Your task to perform on an android device: Open notification settings Image 0: 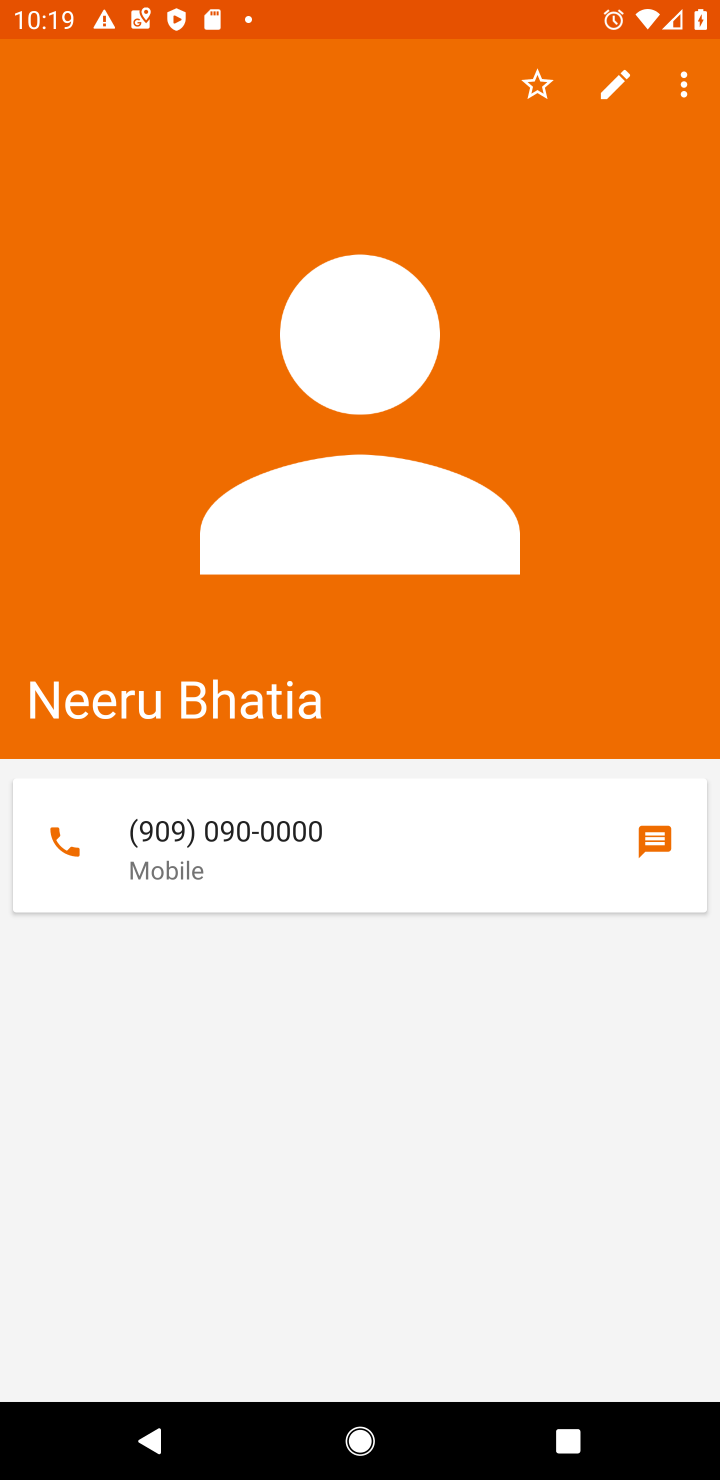
Step 0: press home button
Your task to perform on an android device: Open notification settings Image 1: 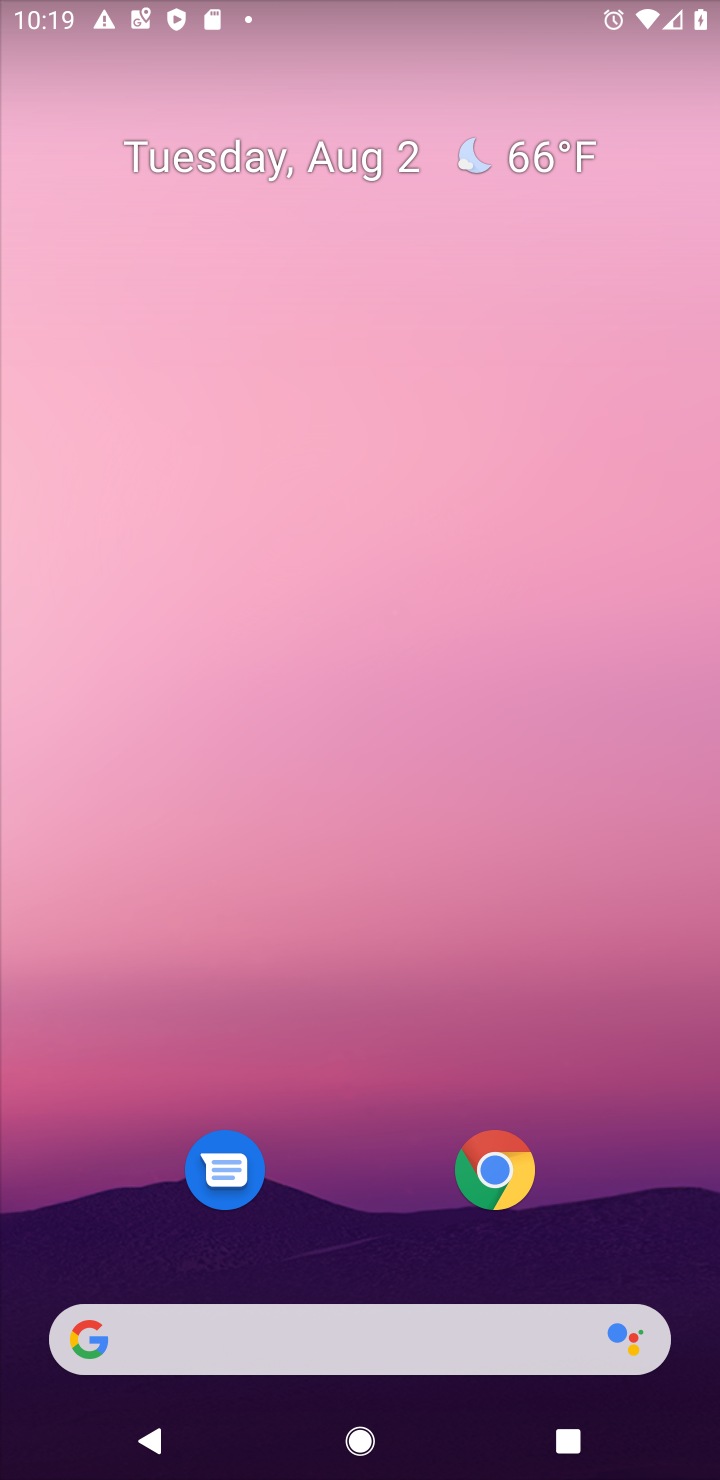
Step 1: drag from (314, 1250) to (340, 381)
Your task to perform on an android device: Open notification settings Image 2: 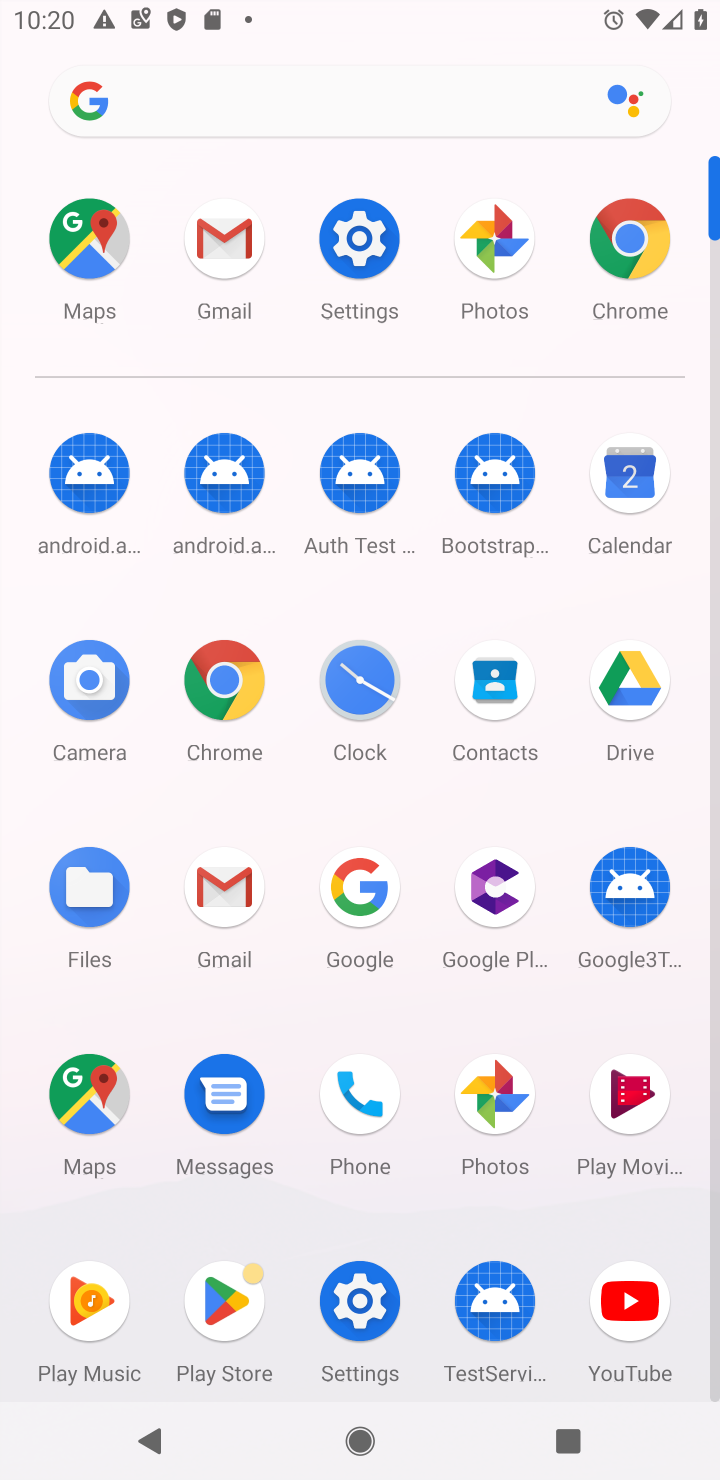
Step 2: click (353, 230)
Your task to perform on an android device: Open notification settings Image 3: 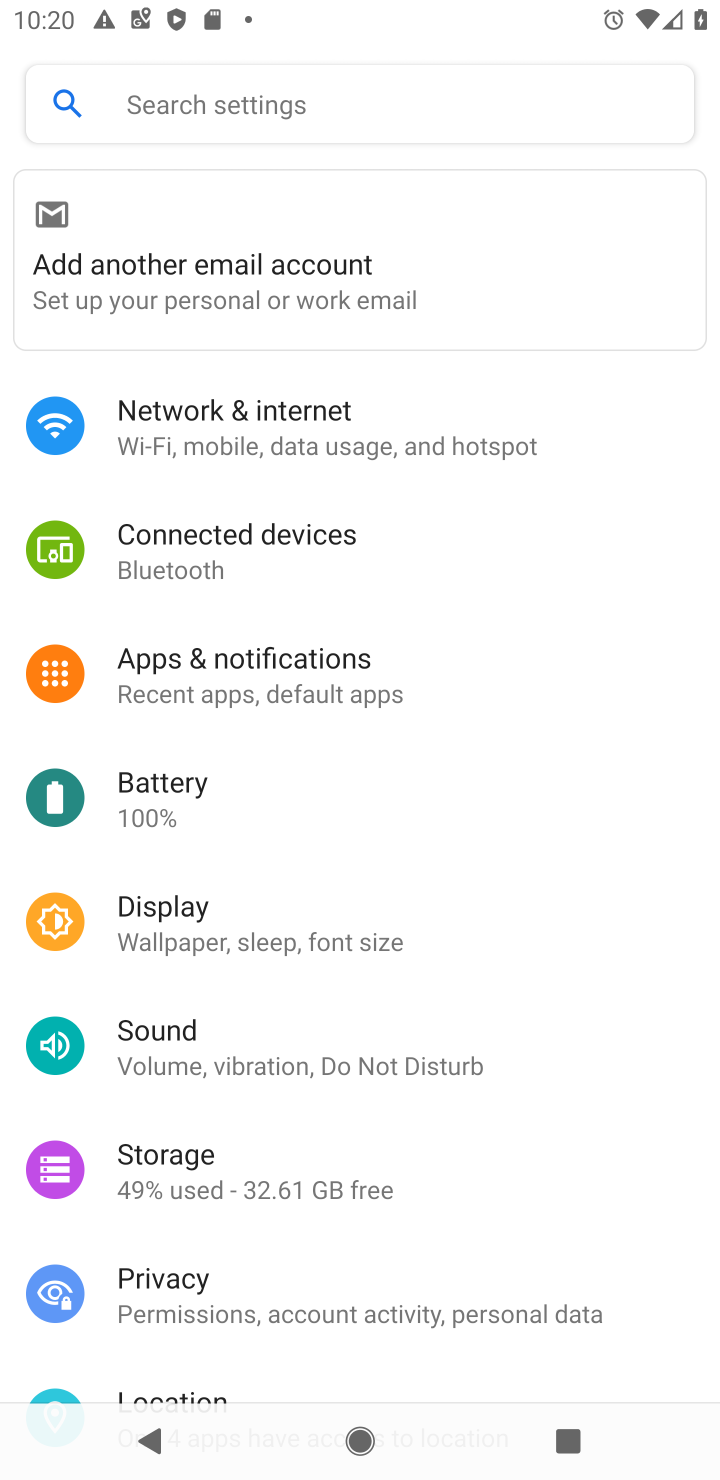
Step 3: click (202, 655)
Your task to perform on an android device: Open notification settings Image 4: 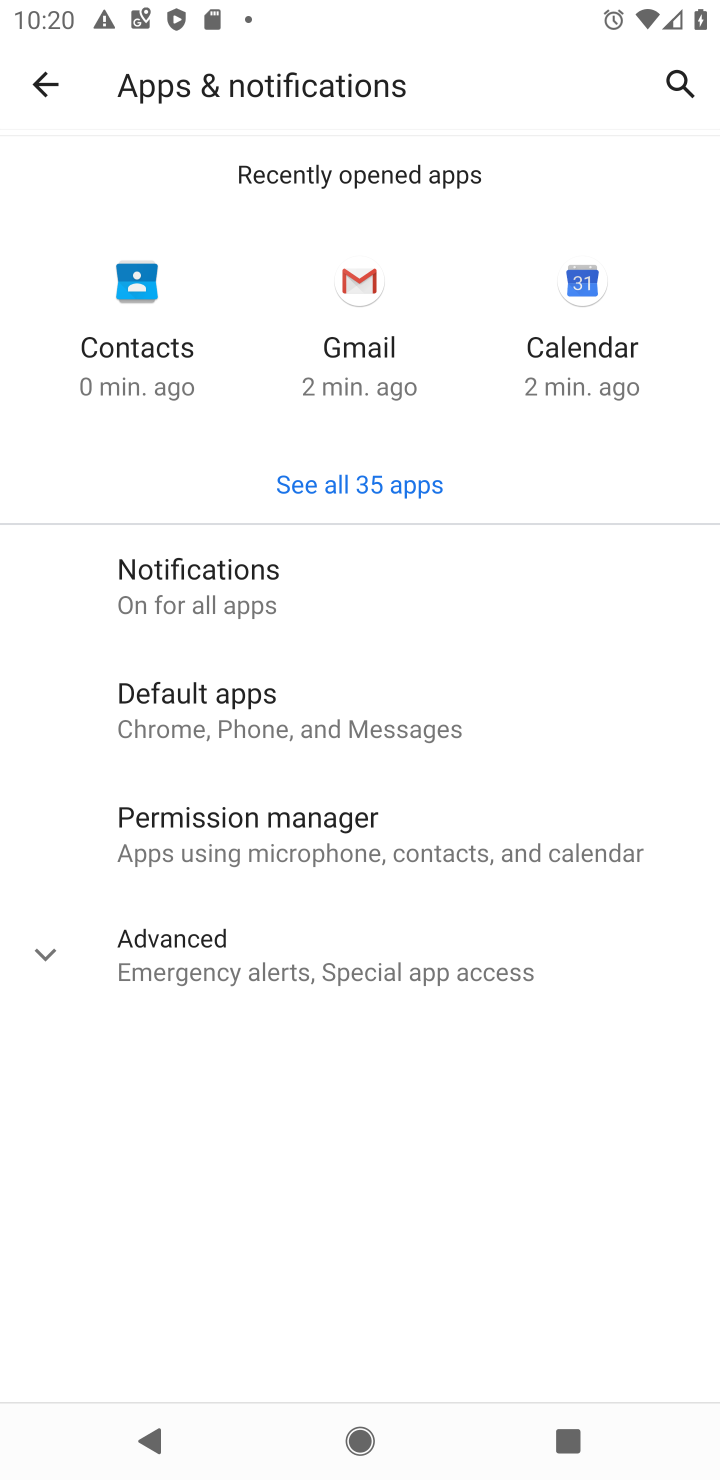
Step 4: task complete